Your task to perform on an android device: check storage Image 0: 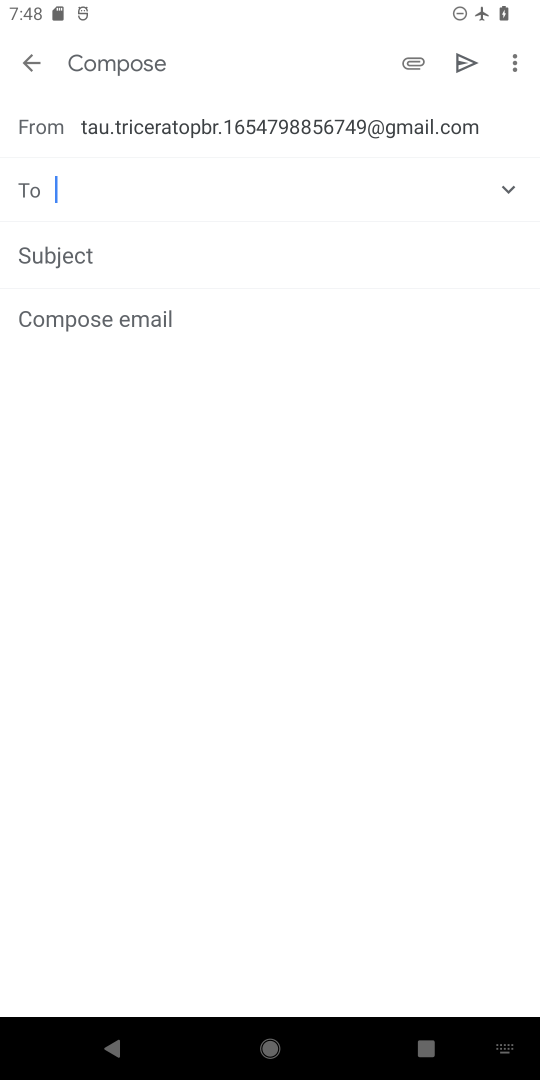
Step 0: press home button
Your task to perform on an android device: check storage Image 1: 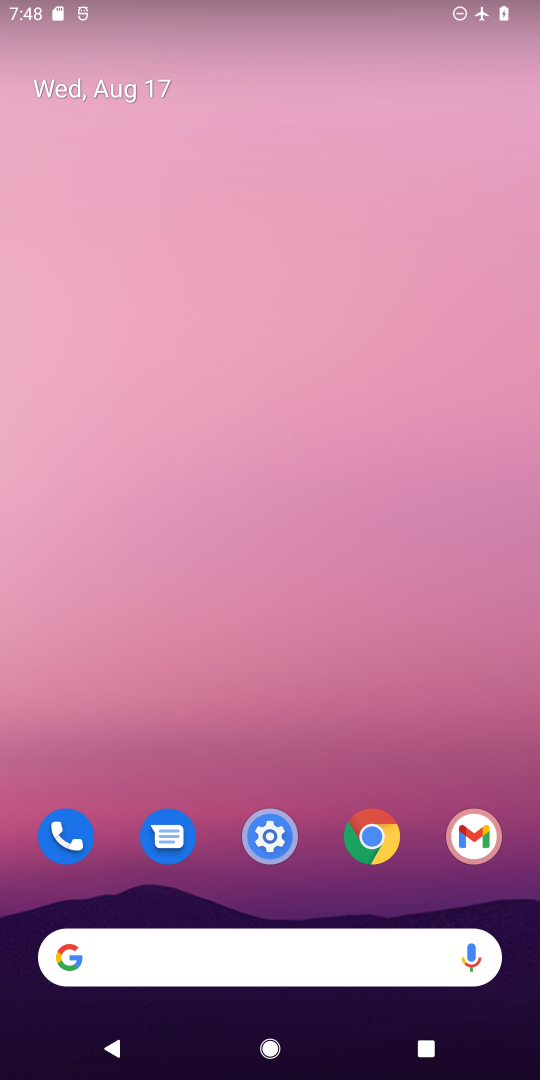
Step 1: drag from (279, 941) to (373, 184)
Your task to perform on an android device: check storage Image 2: 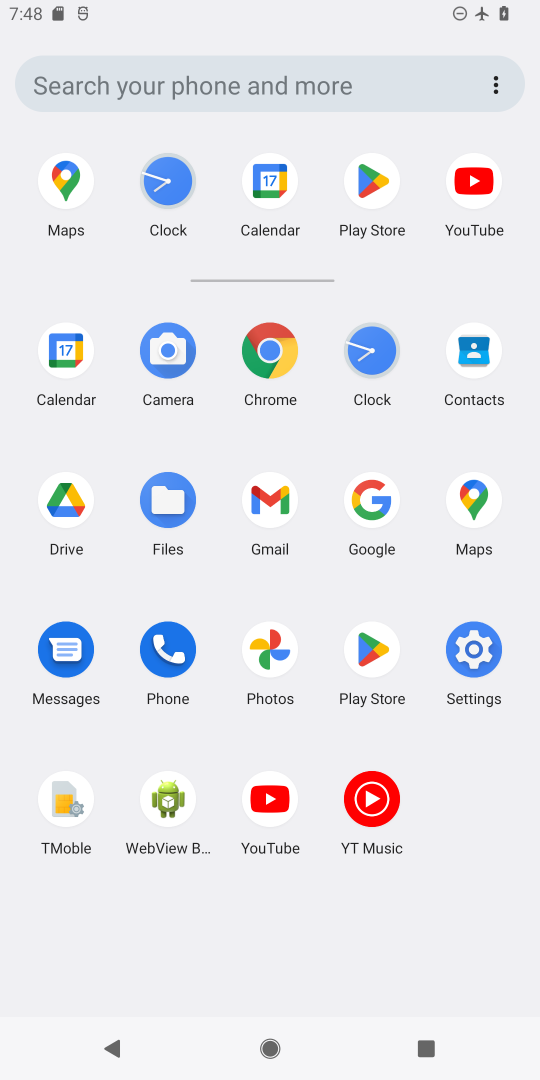
Step 2: click (472, 642)
Your task to perform on an android device: check storage Image 3: 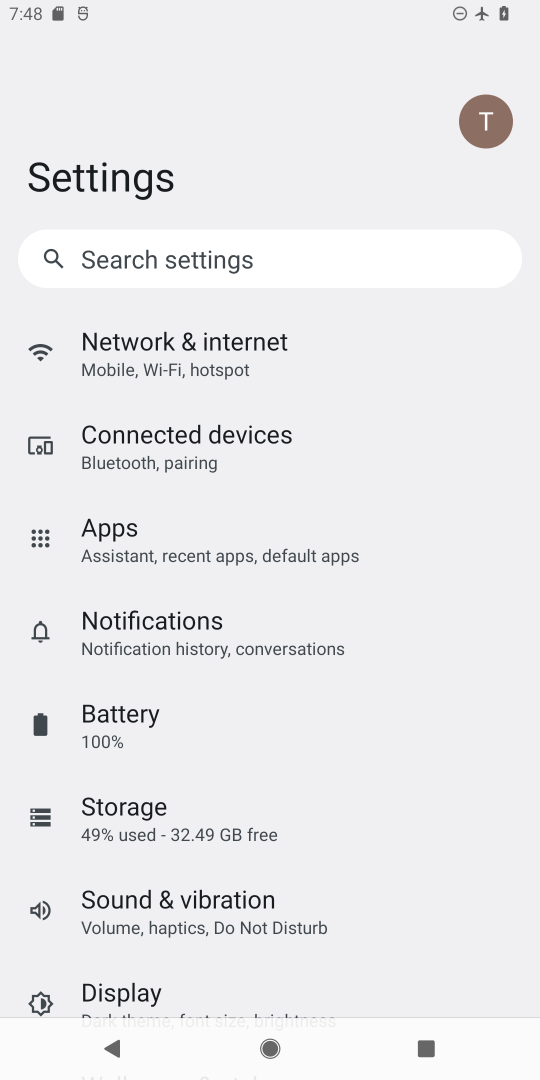
Step 3: click (189, 825)
Your task to perform on an android device: check storage Image 4: 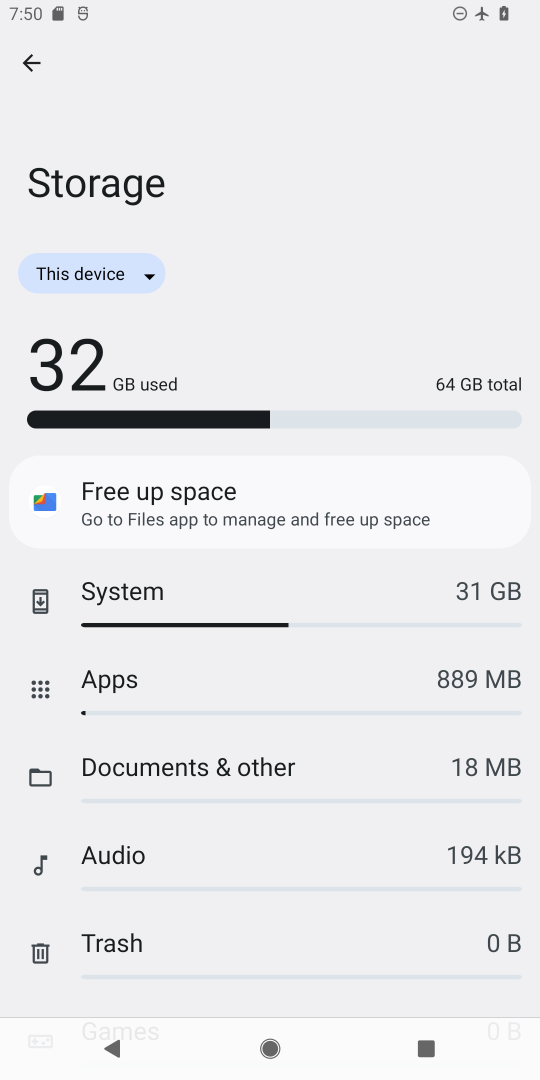
Step 4: task complete